Your task to perform on an android device: turn off wifi Image 0: 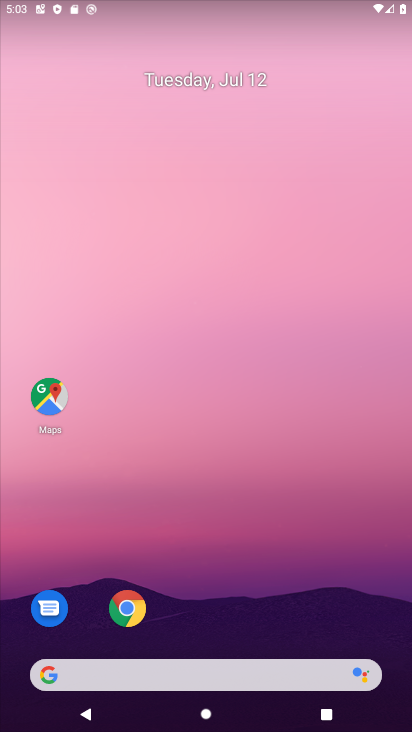
Step 0: drag from (214, 8) to (238, 542)
Your task to perform on an android device: turn off wifi Image 1: 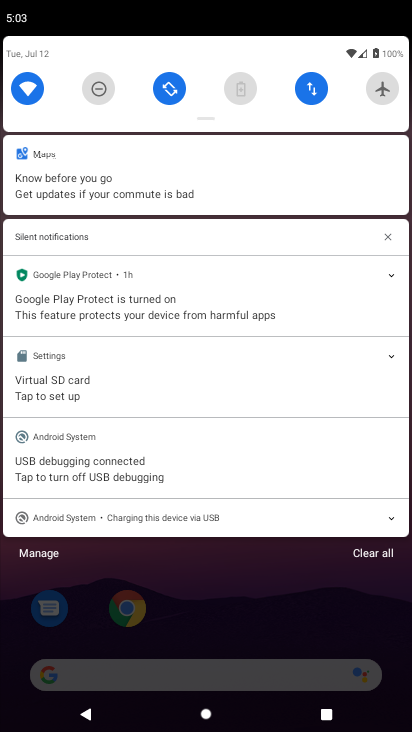
Step 1: click (29, 91)
Your task to perform on an android device: turn off wifi Image 2: 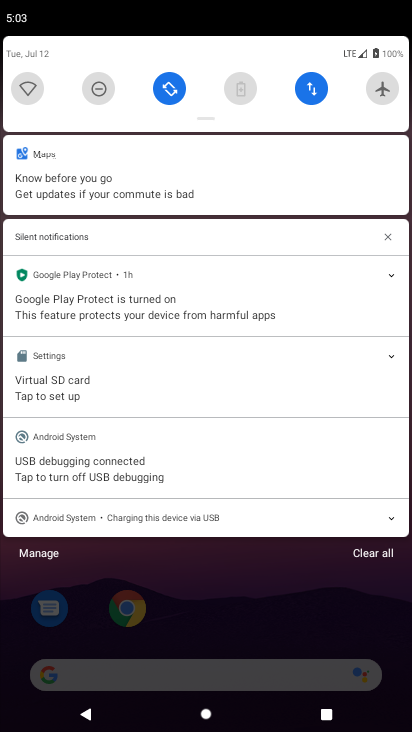
Step 2: task complete